Your task to perform on an android device: open wifi settings Image 0: 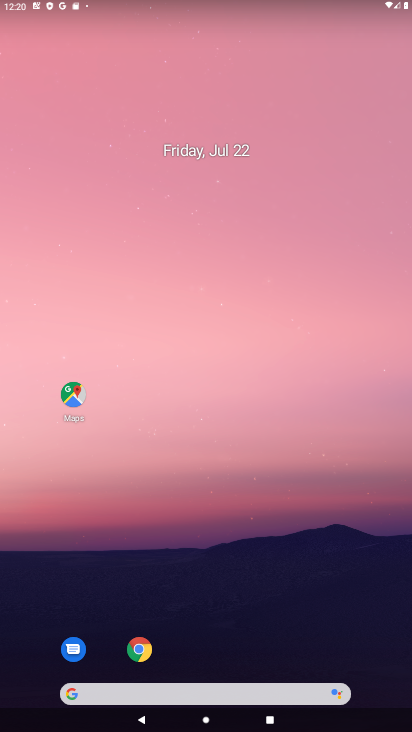
Step 0: drag from (228, 727) to (214, 34)
Your task to perform on an android device: open wifi settings Image 1: 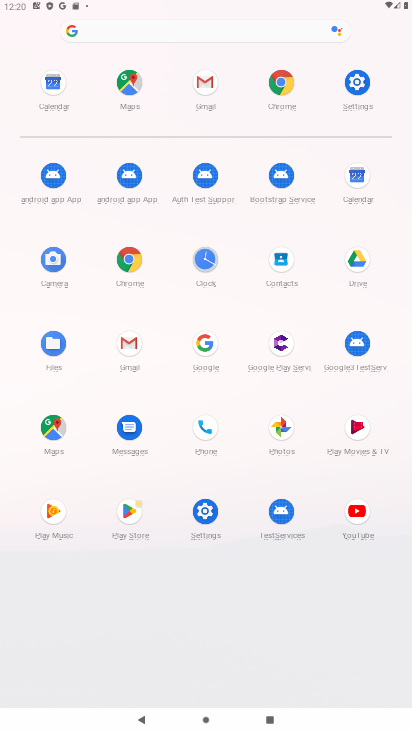
Step 1: click (359, 86)
Your task to perform on an android device: open wifi settings Image 2: 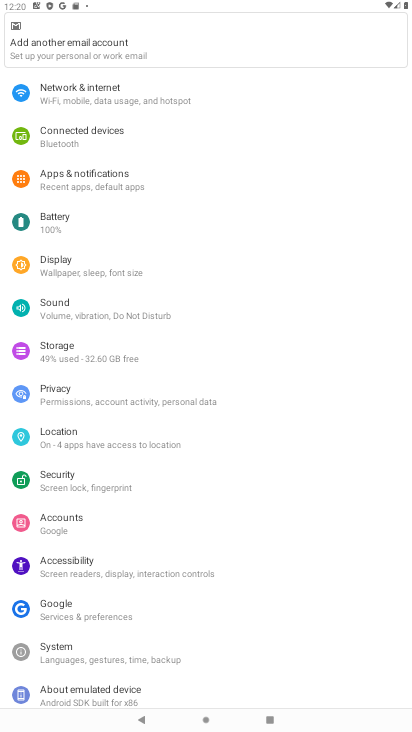
Step 2: click (86, 91)
Your task to perform on an android device: open wifi settings Image 3: 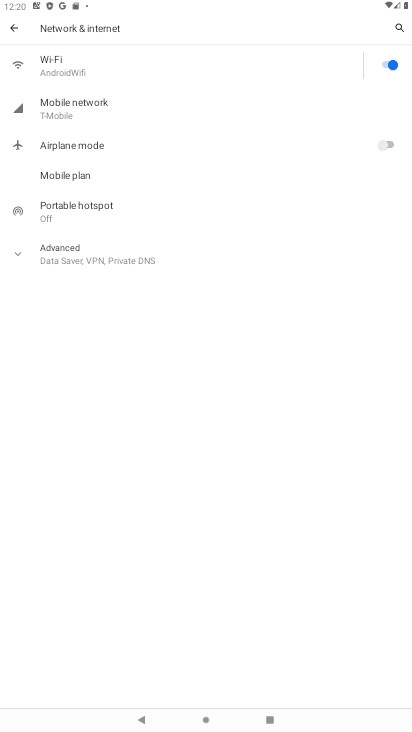
Step 3: click (57, 64)
Your task to perform on an android device: open wifi settings Image 4: 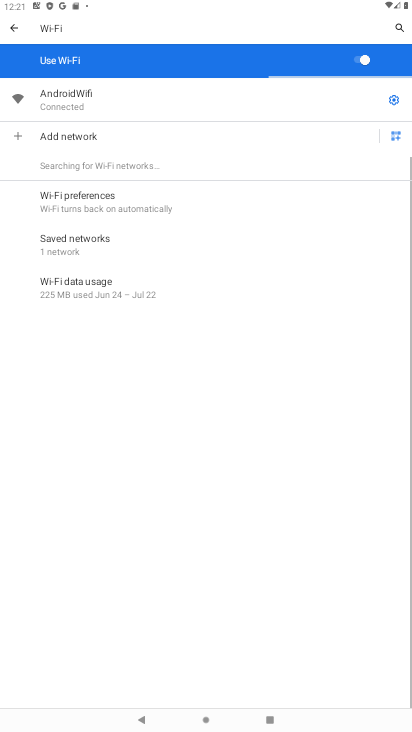
Step 4: task complete